Your task to perform on an android device: open the mobile data screen to see how much data has been used Image 0: 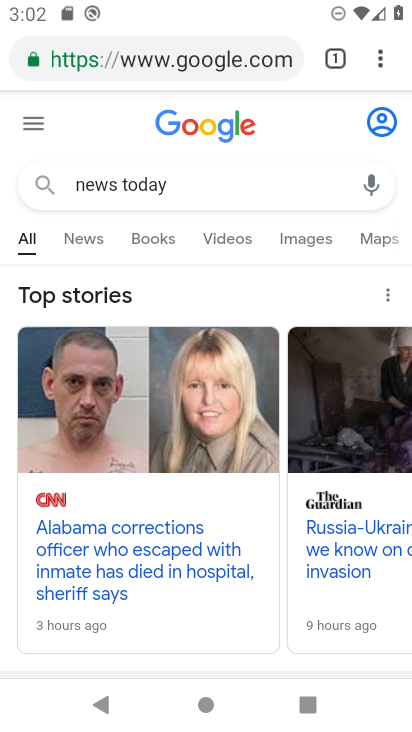
Step 0: press home button
Your task to perform on an android device: open the mobile data screen to see how much data has been used Image 1: 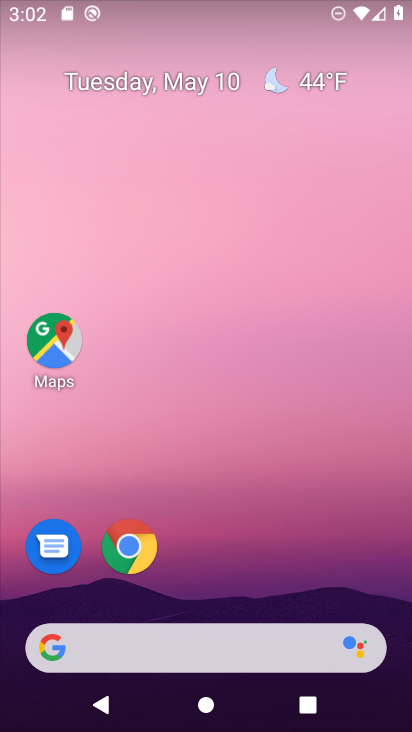
Step 1: drag from (247, 652) to (308, 76)
Your task to perform on an android device: open the mobile data screen to see how much data has been used Image 2: 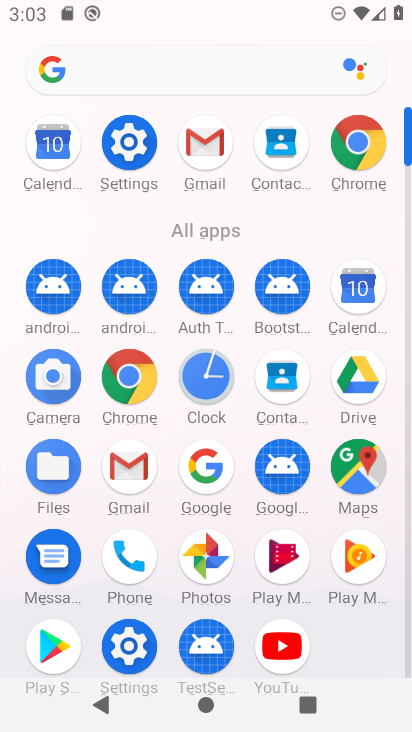
Step 2: click (135, 161)
Your task to perform on an android device: open the mobile data screen to see how much data has been used Image 3: 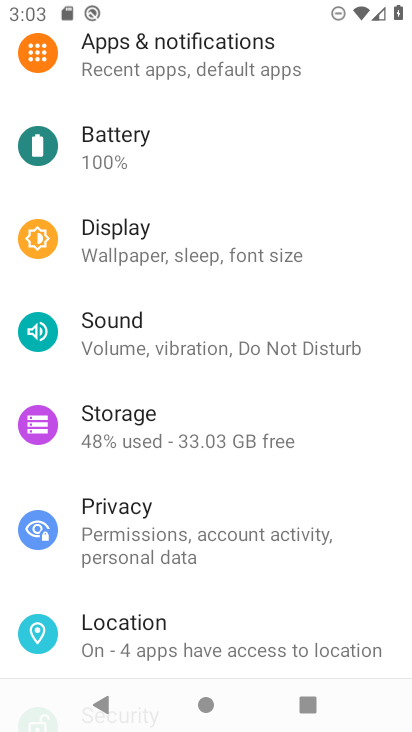
Step 3: drag from (223, 205) to (244, 681)
Your task to perform on an android device: open the mobile data screen to see how much data has been used Image 4: 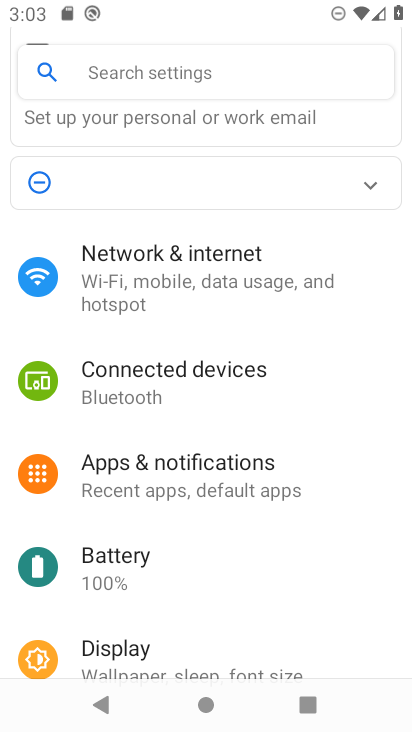
Step 4: click (244, 282)
Your task to perform on an android device: open the mobile data screen to see how much data has been used Image 5: 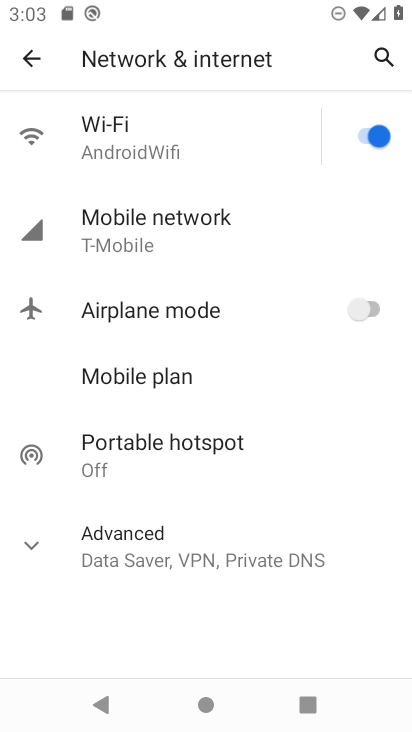
Step 5: click (148, 217)
Your task to perform on an android device: open the mobile data screen to see how much data has been used Image 6: 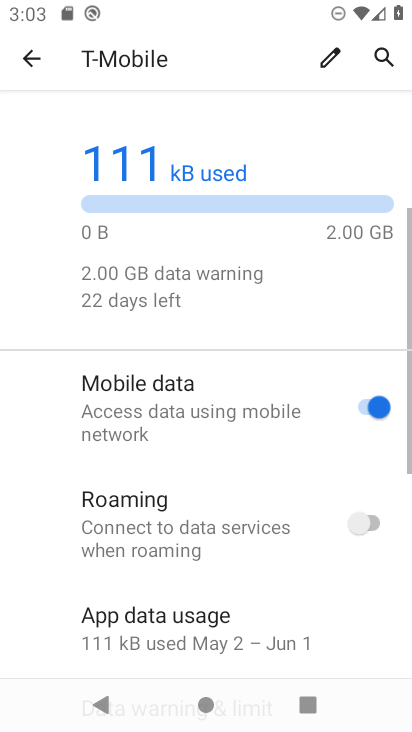
Step 6: drag from (244, 616) to (253, 129)
Your task to perform on an android device: open the mobile data screen to see how much data has been used Image 7: 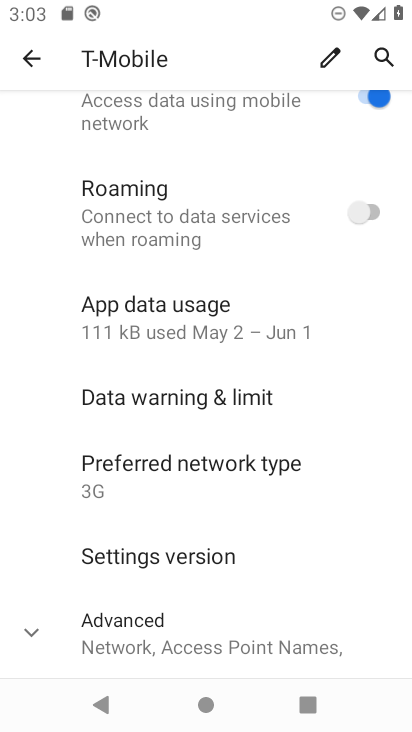
Step 7: click (145, 323)
Your task to perform on an android device: open the mobile data screen to see how much data has been used Image 8: 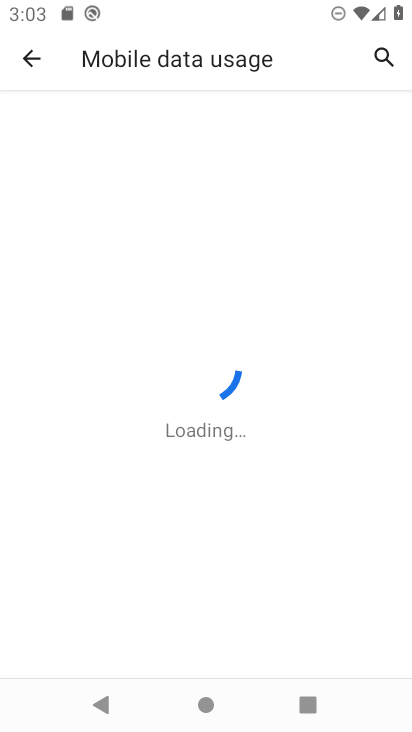
Step 8: task complete